Your task to perform on an android device: turn off notifications settings in the gmail app Image 0: 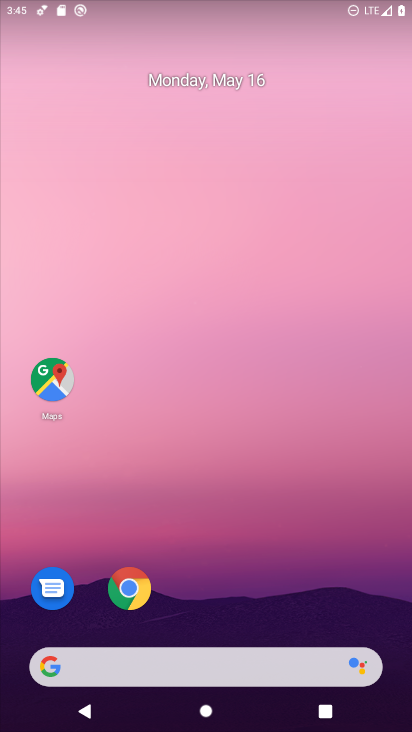
Step 0: drag from (393, 611) to (404, 51)
Your task to perform on an android device: turn off notifications settings in the gmail app Image 1: 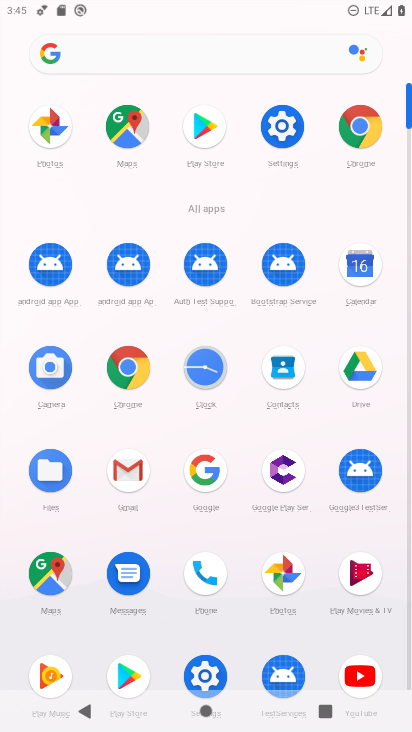
Step 1: click (124, 470)
Your task to perform on an android device: turn off notifications settings in the gmail app Image 2: 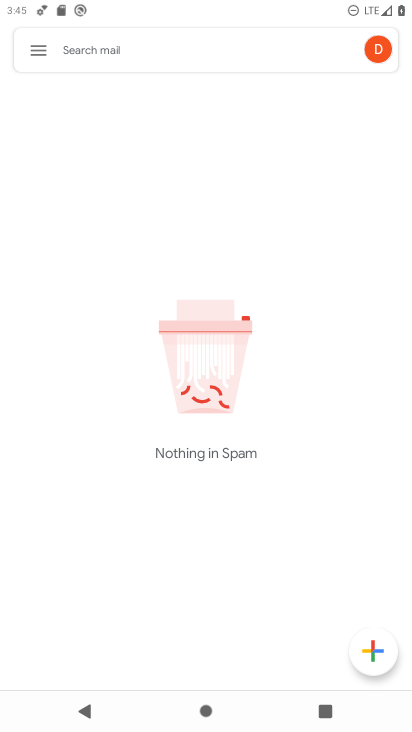
Step 2: click (46, 55)
Your task to perform on an android device: turn off notifications settings in the gmail app Image 3: 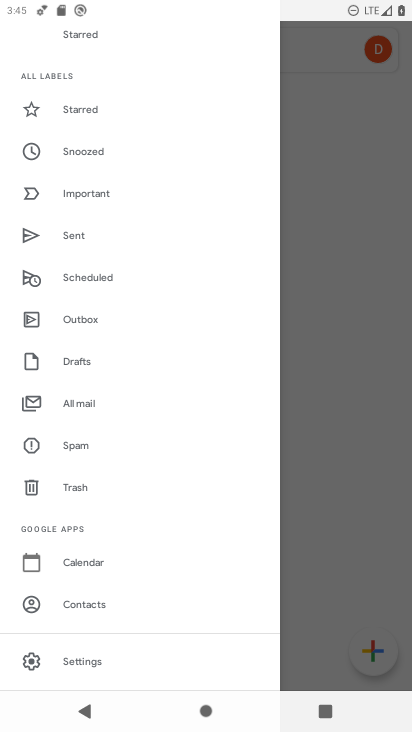
Step 3: click (93, 658)
Your task to perform on an android device: turn off notifications settings in the gmail app Image 4: 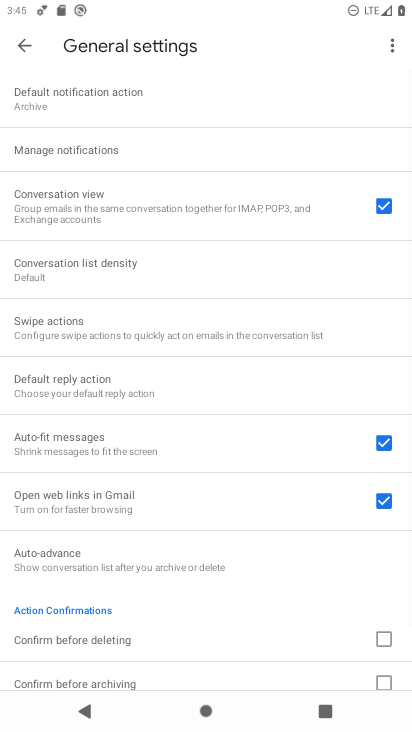
Step 4: click (94, 155)
Your task to perform on an android device: turn off notifications settings in the gmail app Image 5: 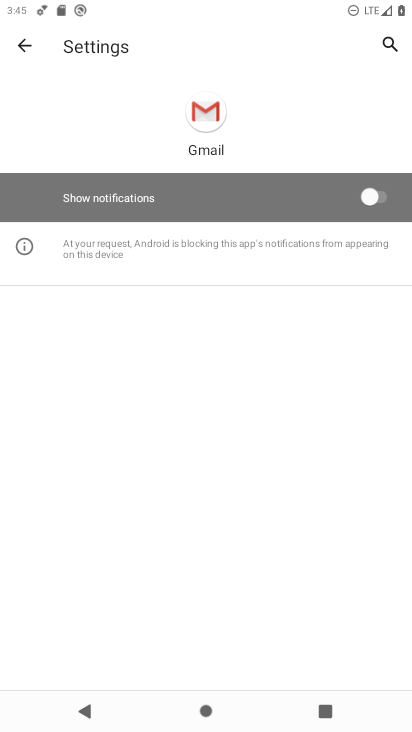
Step 5: task complete